Your task to perform on an android device: change keyboard looks Image 0: 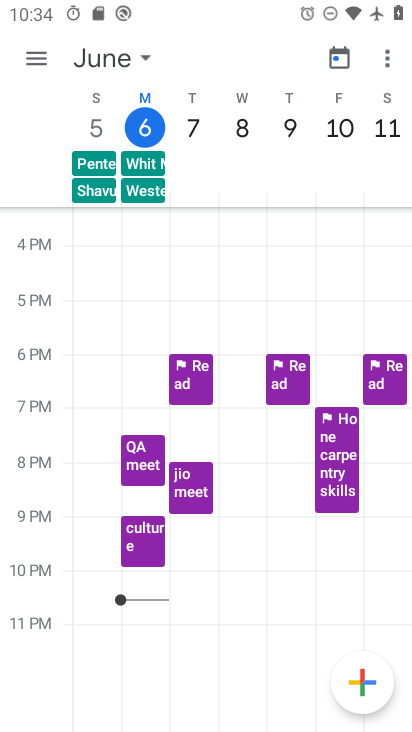
Step 0: press home button
Your task to perform on an android device: change keyboard looks Image 1: 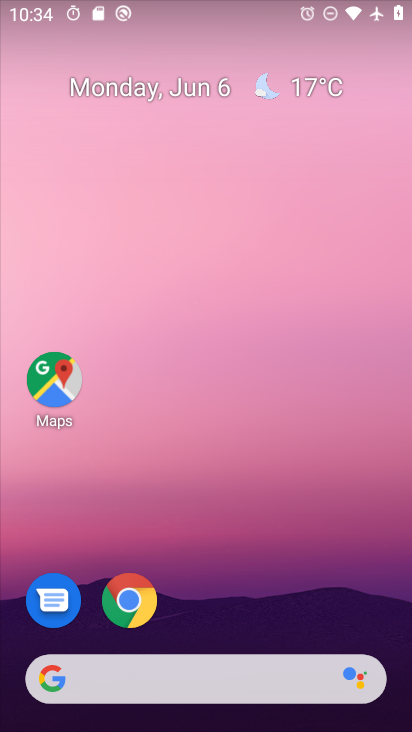
Step 1: drag from (335, 603) to (179, 18)
Your task to perform on an android device: change keyboard looks Image 2: 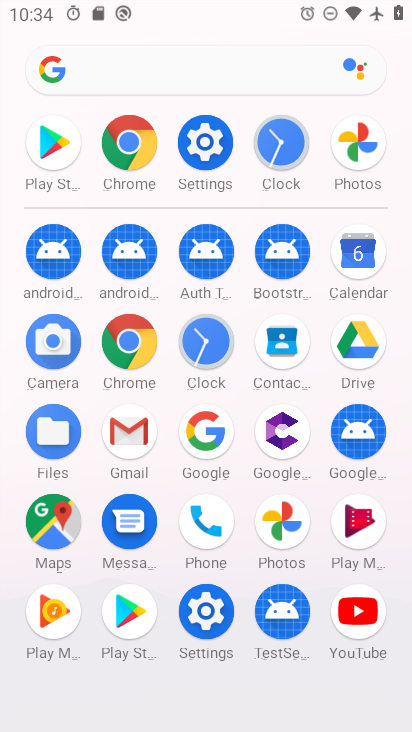
Step 2: click (205, 152)
Your task to perform on an android device: change keyboard looks Image 3: 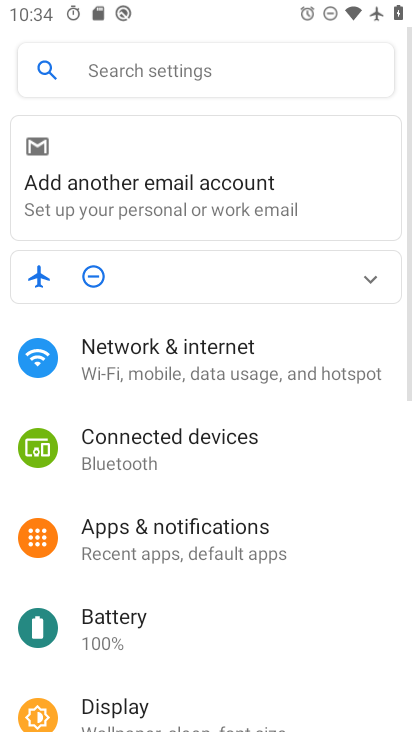
Step 3: drag from (297, 687) to (240, 101)
Your task to perform on an android device: change keyboard looks Image 4: 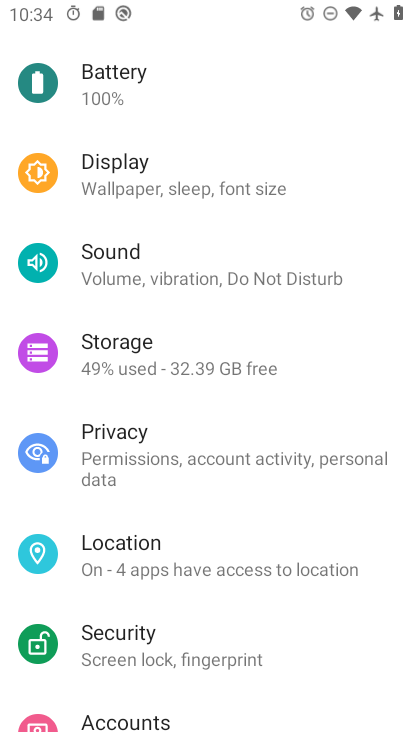
Step 4: drag from (264, 650) to (313, 127)
Your task to perform on an android device: change keyboard looks Image 5: 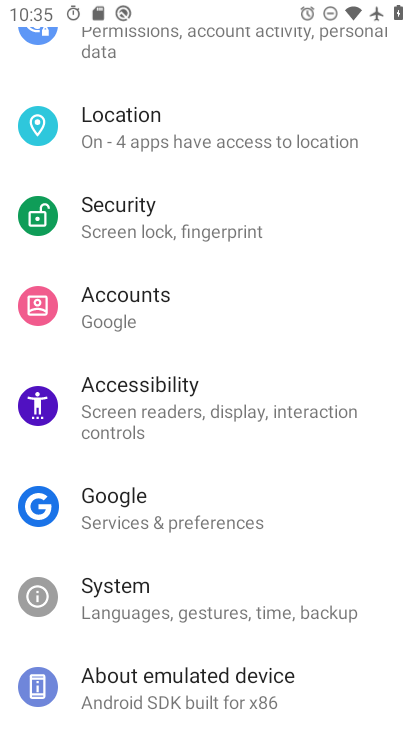
Step 5: click (217, 603)
Your task to perform on an android device: change keyboard looks Image 6: 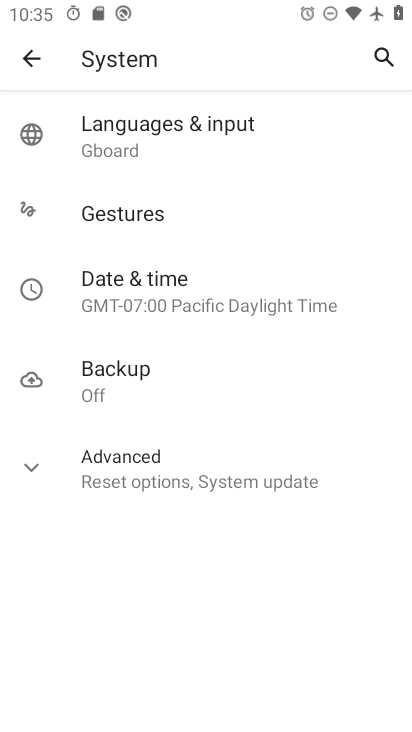
Step 6: click (212, 142)
Your task to perform on an android device: change keyboard looks Image 7: 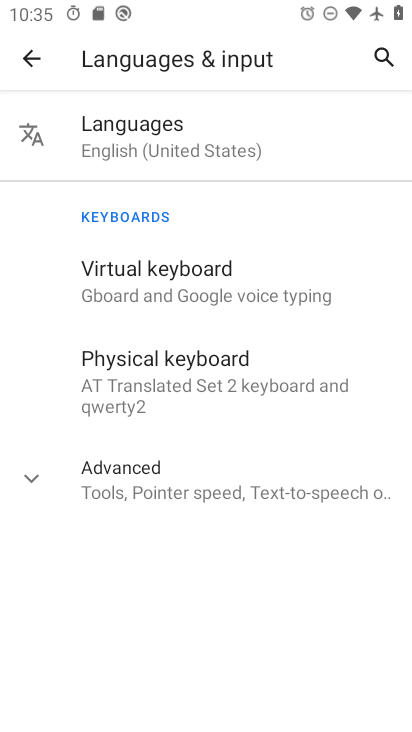
Step 7: click (176, 291)
Your task to perform on an android device: change keyboard looks Image 8: 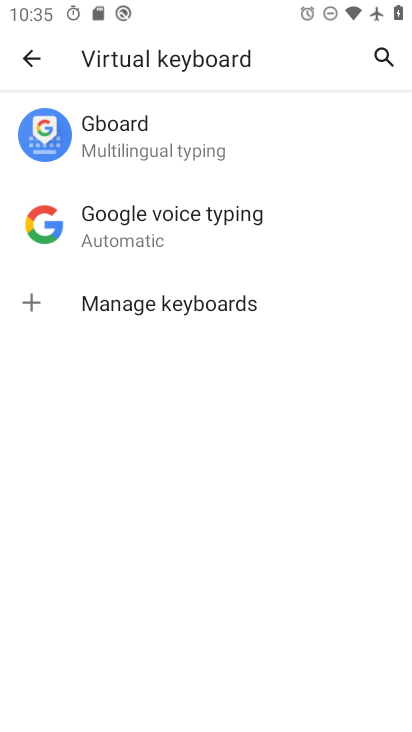
Step 8: click (189, 136)
Your task to perform on an android device: change keyboard looks Image 9: 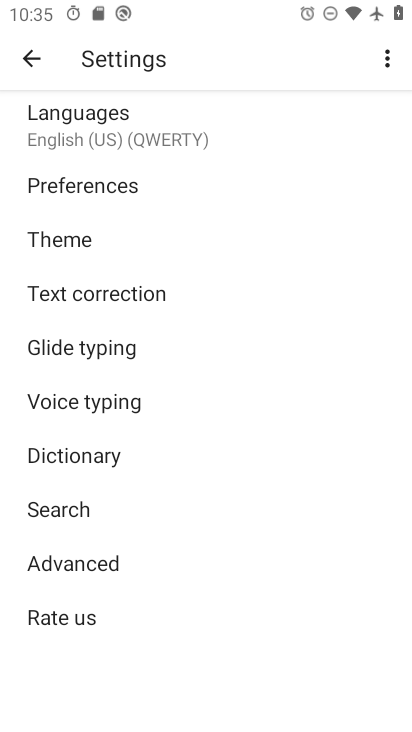
Step 9: click (153, 242)
Your task to perform on an android device: change keyboard looks Image 10: 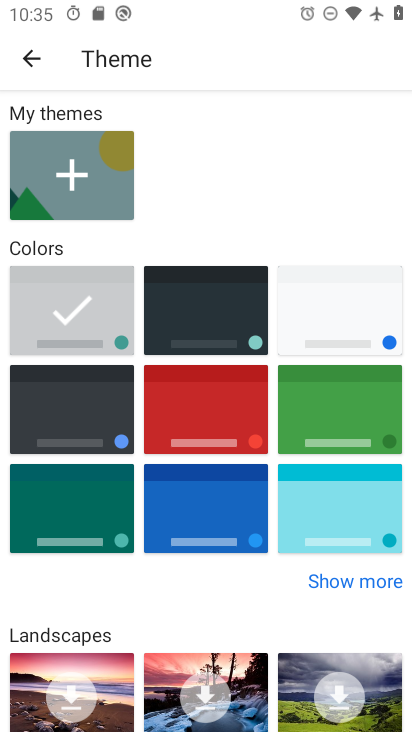
Step 10: click (206, 390)
Your task to perform on an android device: change keyboard looks Image 11: 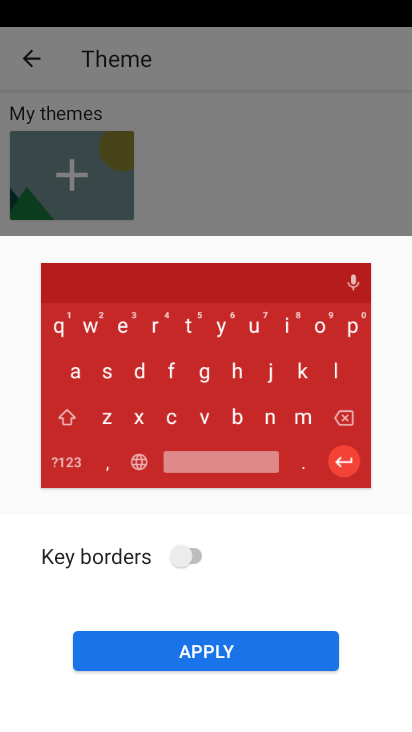
Step 11: click (284, 655)
Your task to perform on an android device: change keyboard looks Image 12: 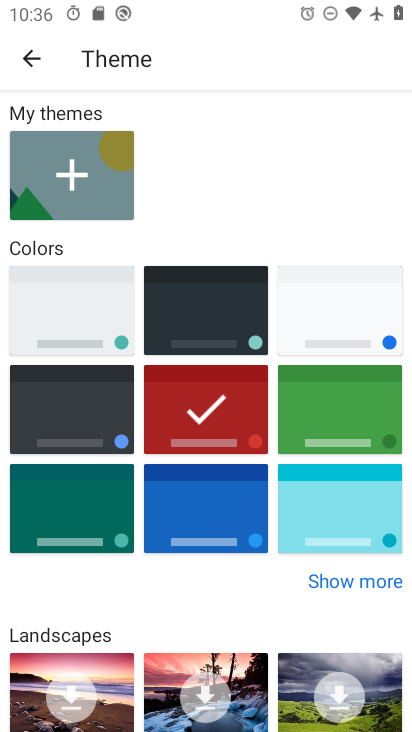
Step 12: task complete